Your task to perform on an android device: Go to calendar. Show me events next week Image 0: 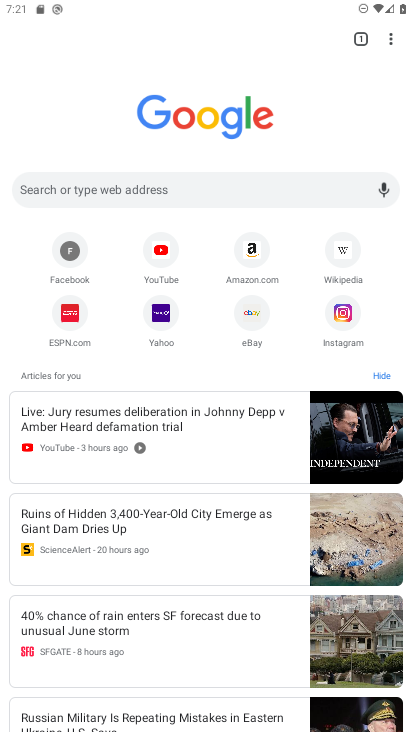
Step 0: press home button
Your task to perform on an android device: Go to calendar. Show me events next week Image 1: 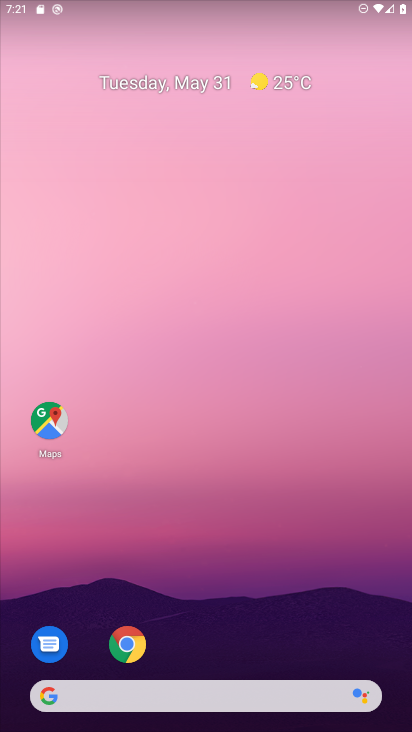
Step 1: drag from (192, 711) to (274, 176)
Your task to perform on an android device: Go to calendar. Show me events next week Image 2: 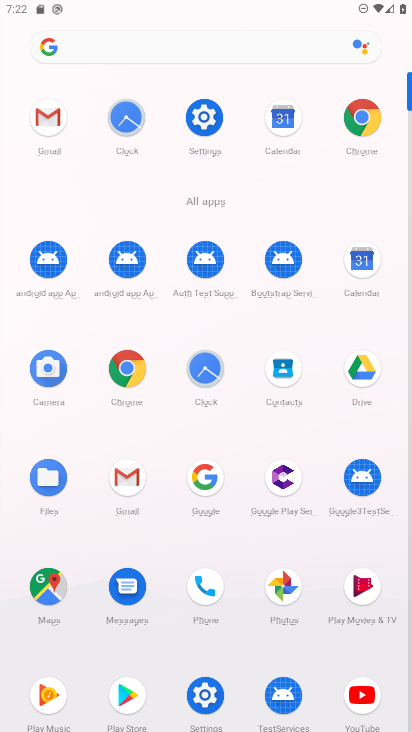
Step 2: click (279, 125)
Your task to perform on an android device: Go to calendar. Show me events next week Image 3: 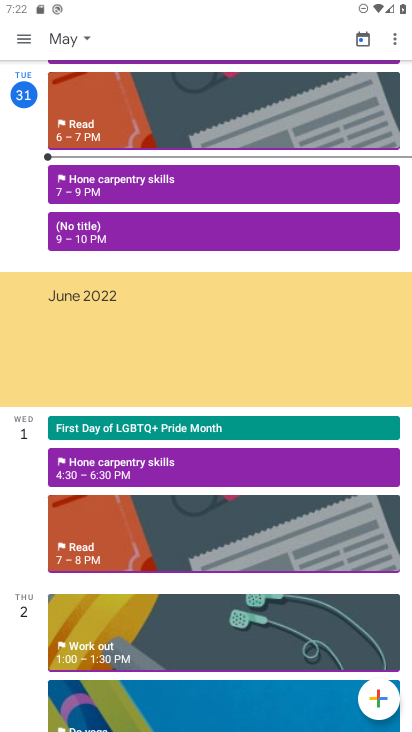
Step 3: click (18, 37)
Your task to perform on an android device: Go to calendar. Show me events next week Image 4: 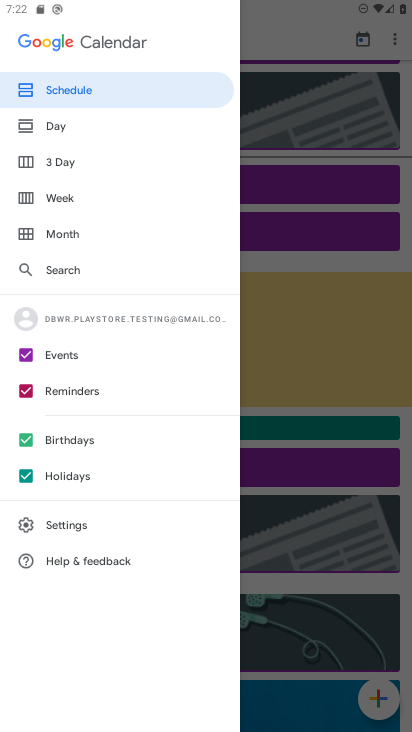
Step 4: click (69, 236)
Your task to perform on an android device: Go to calendar. Show me events next week Image 5: 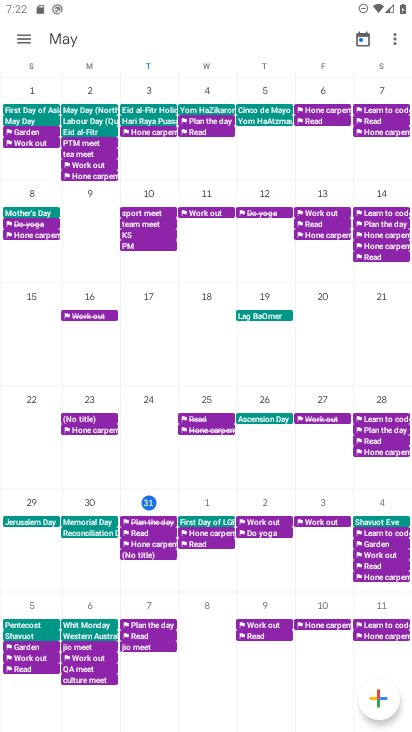
Step 5: click (147, 573)
Your task to perform on an android device: Go to calendar. Show me events next week Image 6: 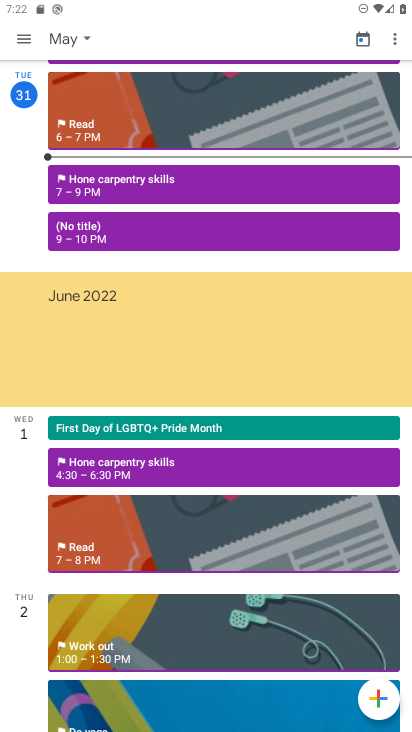
Step 6: task complete